Your task to perform on an android device: refresh tabs in the chrome app Image 0: 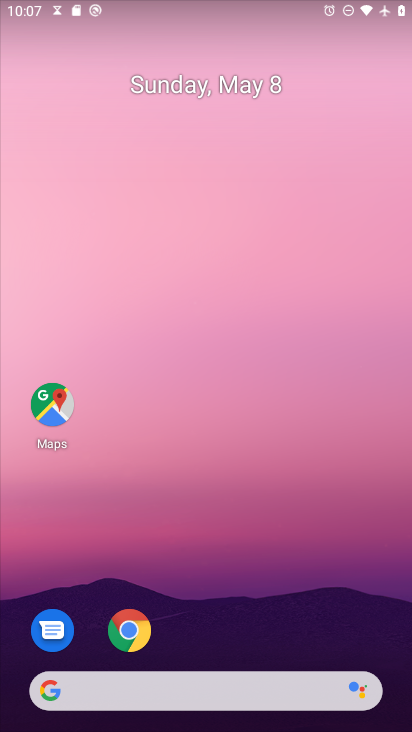
Step 0: click (130, 623)
Your task to perform on an android device: refresh tabs in the chrome app Image 1: 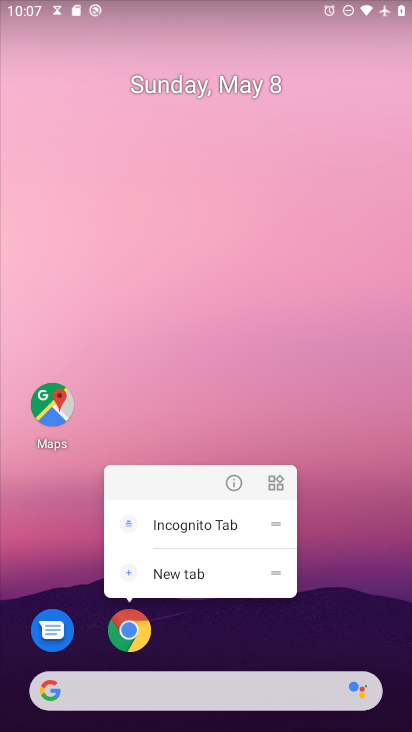
Step 1: click (135, 632)
Your task to perform on an android device: refresh tabs in the chrome app Image 2: 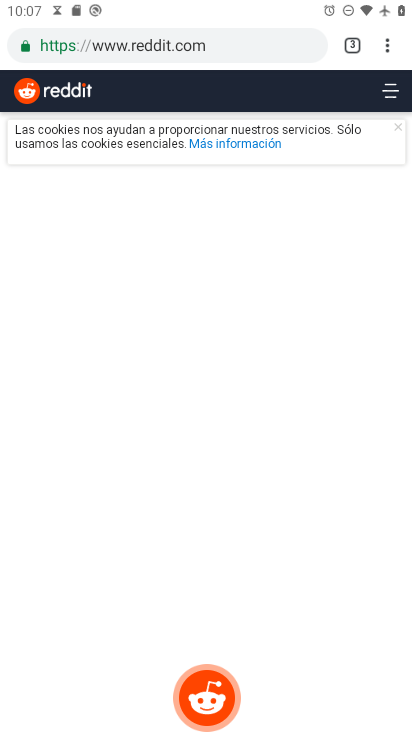
Step 2: click (383, 57)
Your task to perform on an android device: refresh tabs in the chrome app Image 3: 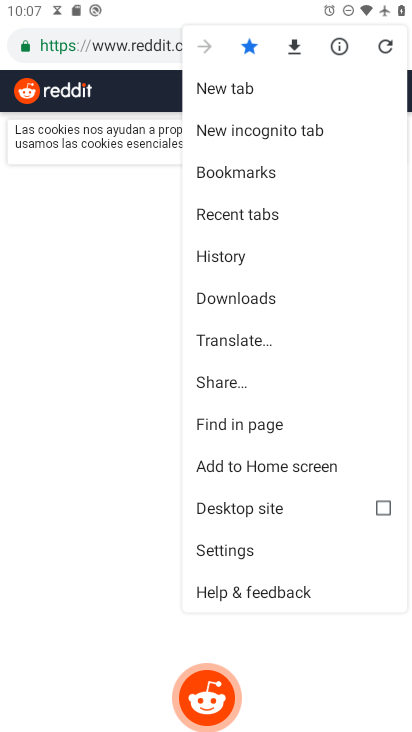
Step 3: click (381, 46)
Your task to perform on an android device: refresh tabs in the chrome app Image 4: 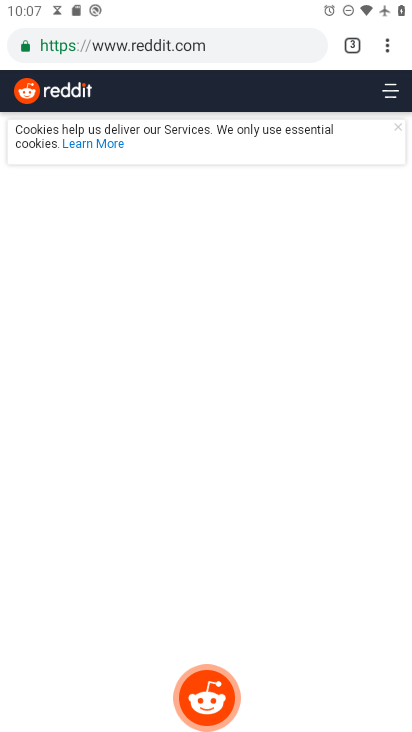
Step 4: task complete